Your task to perform on an android device: When is my next meeting? Image 0: 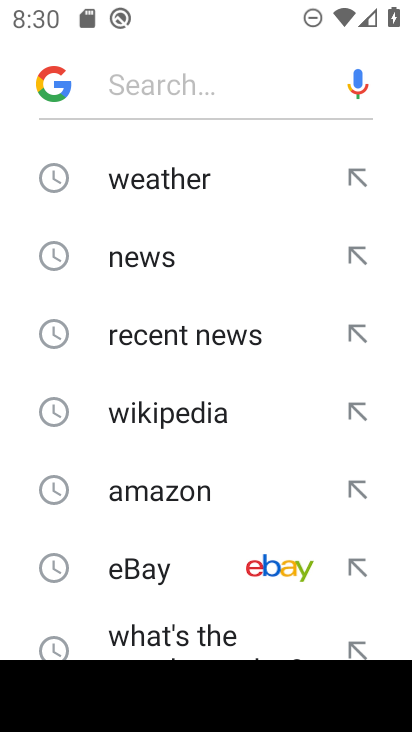
Step 0: press home button
Your task to perform on an android device: When is my next meeting? Image 1: 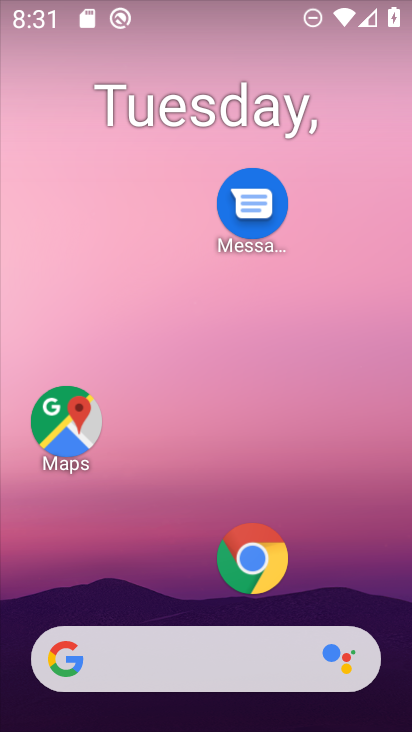
Step 1: drag from (185, 582) to (191, 174)
Your task to perform on an android device: When is my next meeting? Image 2: 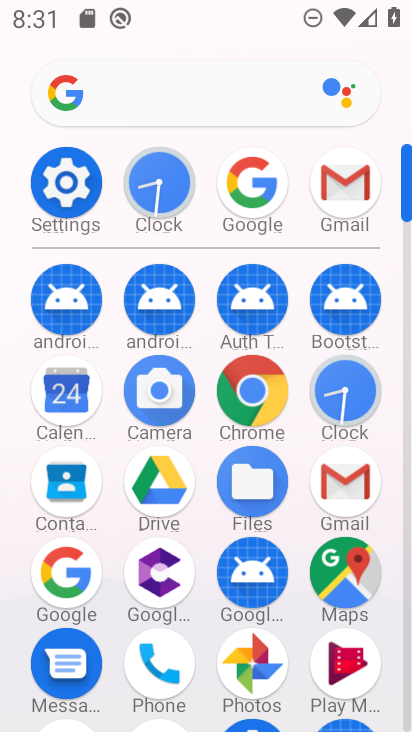
Step 2: click (59, 389)
Your task to perform on an android device: When is my next meeting? Image 3: 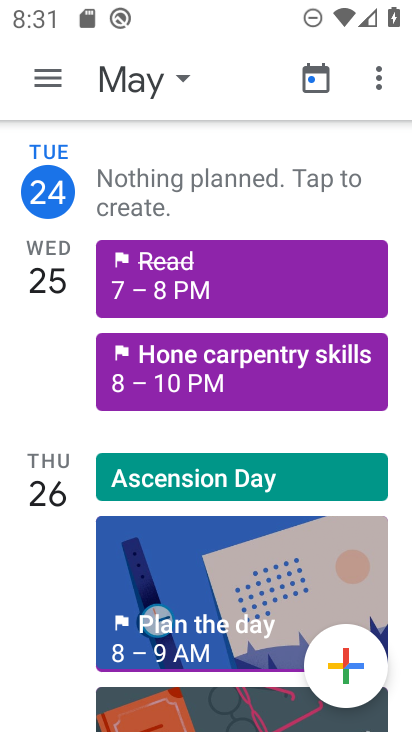
Step 3: task complete